Your task to perform on an android device: check google app version Image 0: 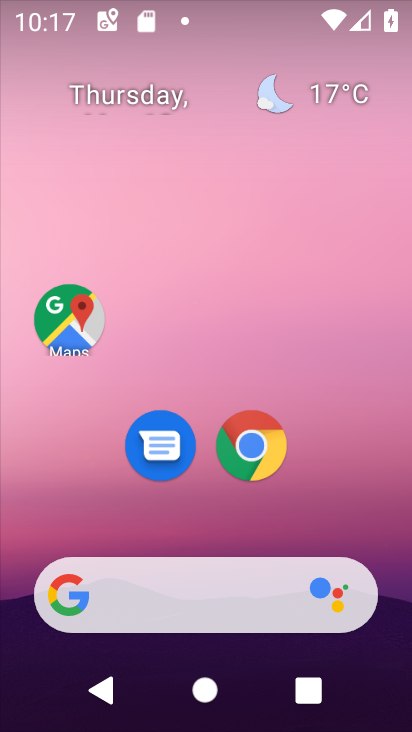
Step 0: drag from (222, 546) to (214, 129)
Your task to perform on an android device: check google app version Image 1: 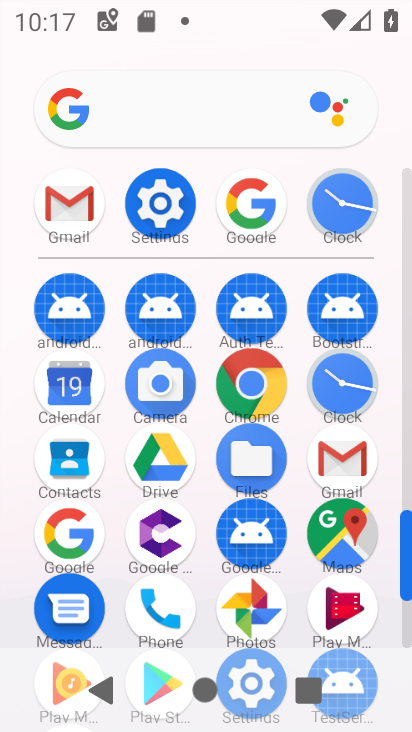
Step 1: click (66, 532)
Your task to perform on an android device: check google app version Image 2: 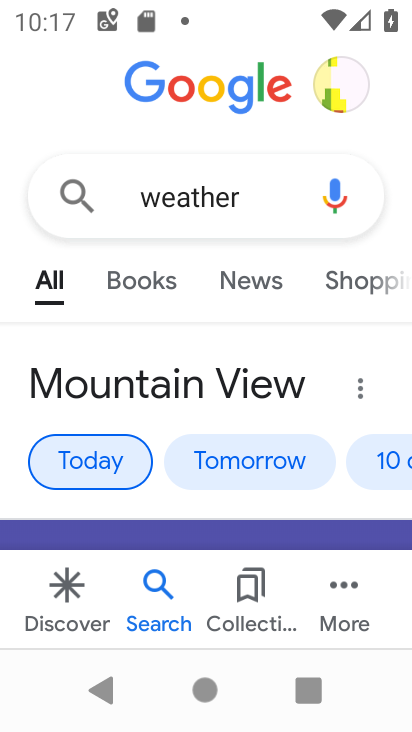
Step 2: click (278, 607)
Your task to perform on an android device: check google app version Image 3: 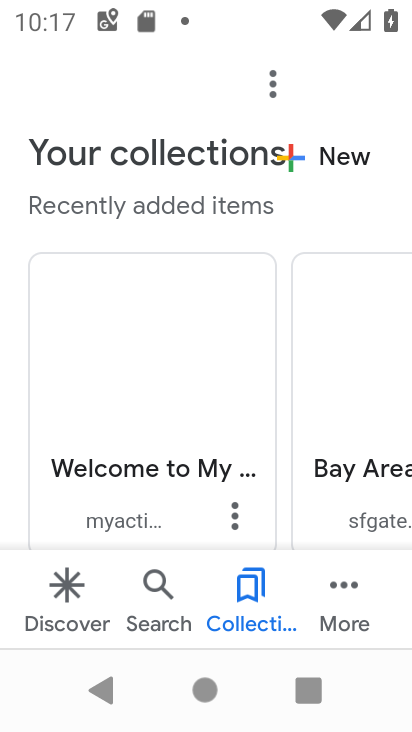
Step 3: click (341, 605)
Your task to perform on an android device: check google app version Image 4: 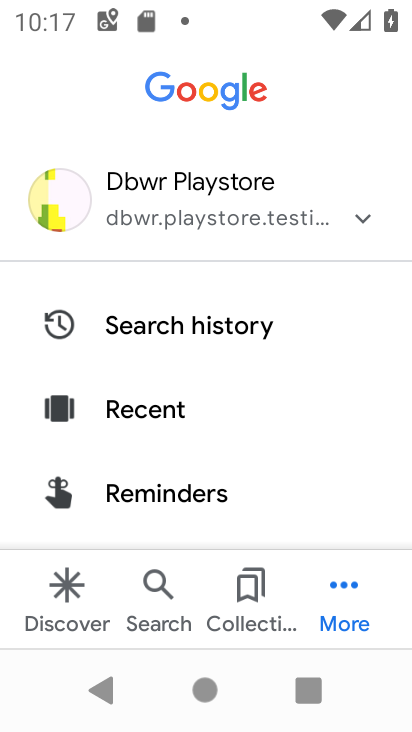
Step 4: drag from (119, 380) to (189, 21)
Your task to perform on an android device: check google app version Image 5: 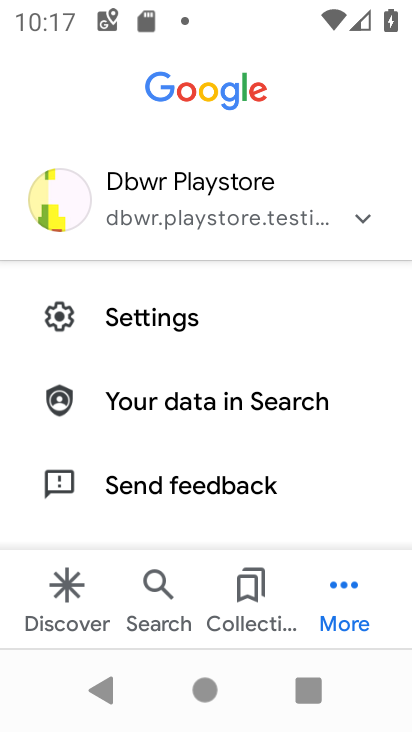
Step 5: drag from (249, 500) to (236, 267)
Your task to perform on an android device: check google app version Image 6: 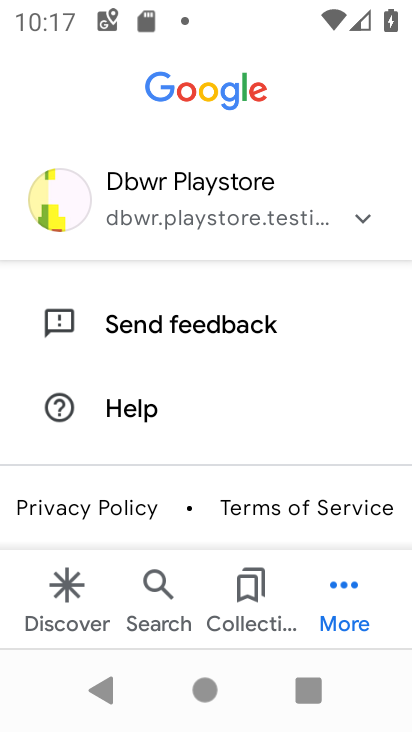
Step 6: drag from (217, 451) to (252, 323)
Your task to perform on an android device: check google app version Image 7: 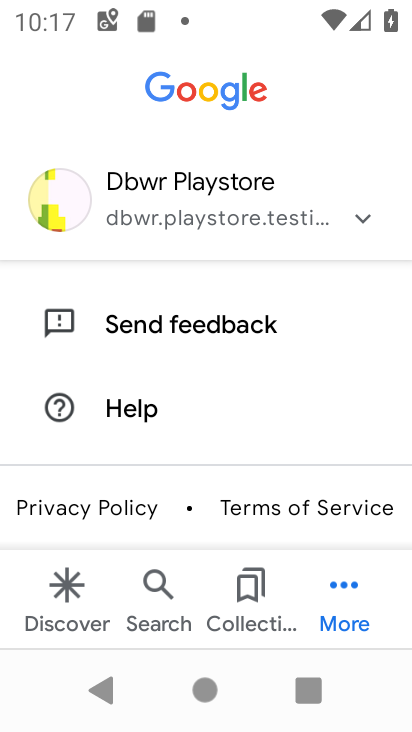
Step 7: drag from (234, 364) to (255, 502)
Your task to perform on an android device: check google app version Image 8: 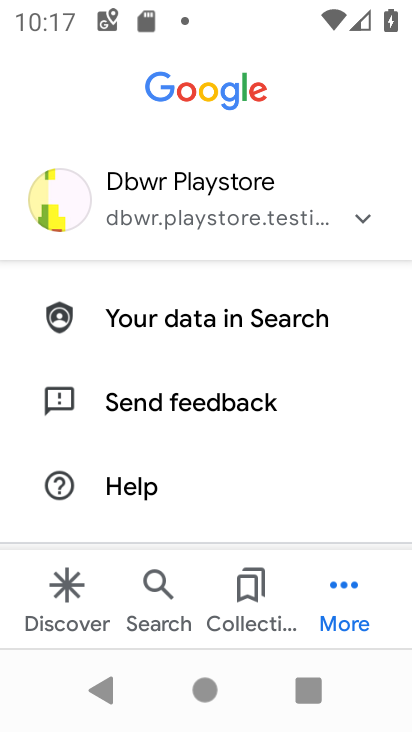
Step 8: drag from (247, 361) to (266, 543)
Your task to perform on an android device: check google app version Image 9: 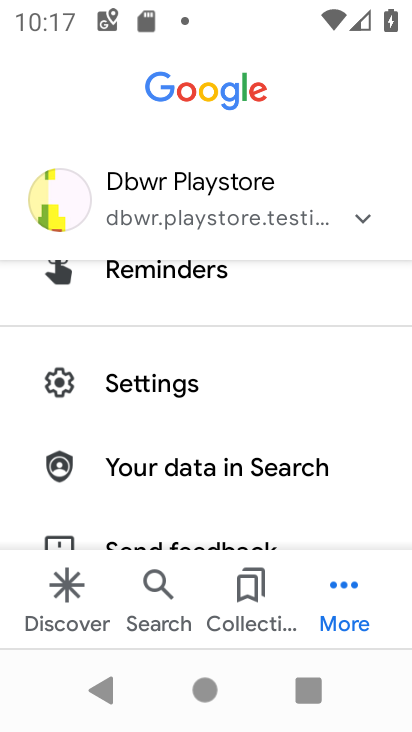
Step 9: click (224, 401)
Your task to perform on an android device: check google app version Image 10: 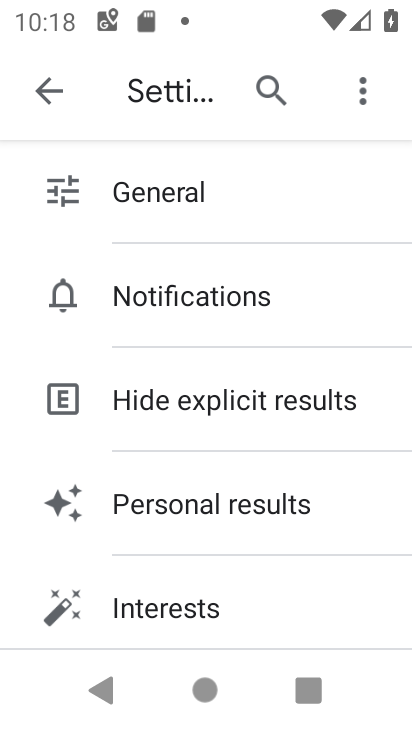
Step 10: drag from (261, 617) to (280, 206)
Your task to perform on an android device: check google app version Image 11: 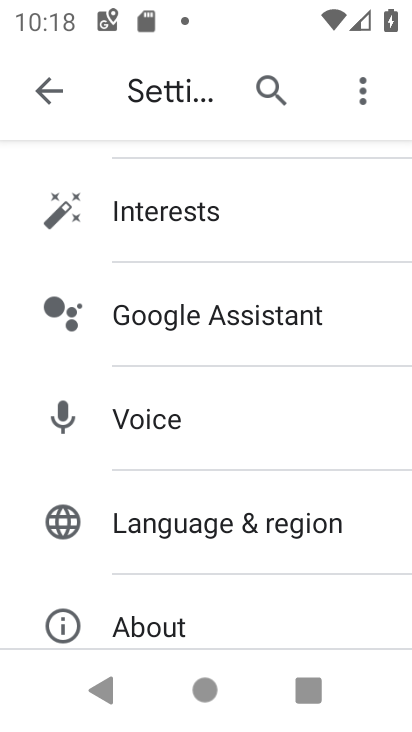
Step 11: click (242, 614)
Your task to perform on an android device: check google app version Image 12: 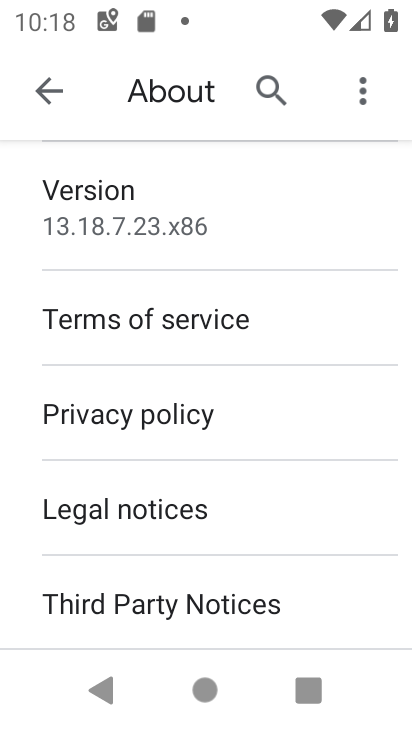
Step 12: task complete